Your task to perform on an android device: Toggle the flashlight Image 0: 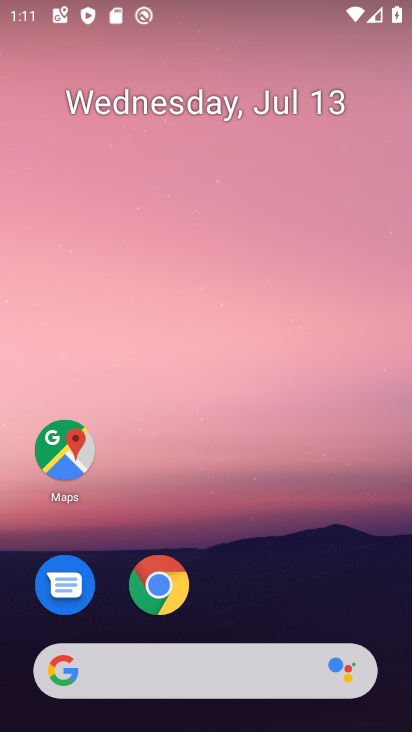
Step 0: drag from (242, 0) to (211, 458)
Your task to perform on an android device: Toggle the flashlight Image 1: 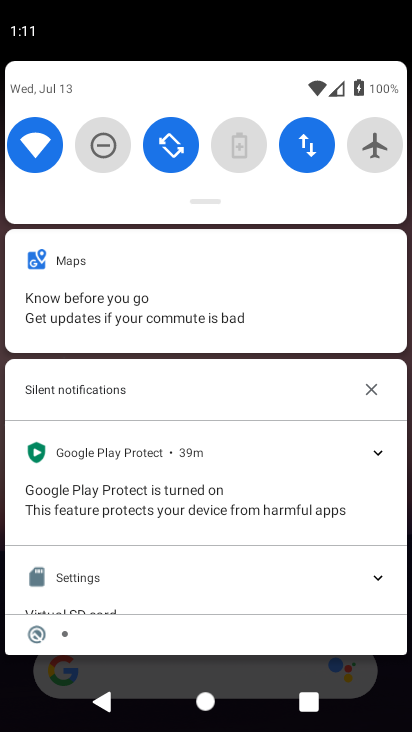
Step 1: task complete